Your task to perform on an android device: Open calendar and show me the third week of next month Image 0: 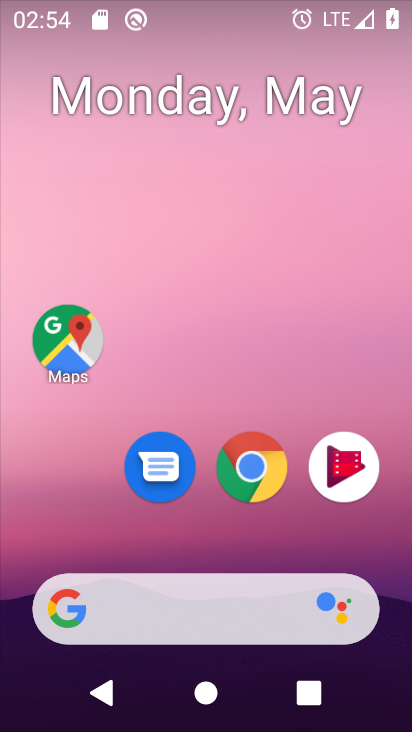
Step 0: drag from (207, 489) to (236, 156)
Your task to perform on an android device: Open calendar and show me the third week of next month Image 1: 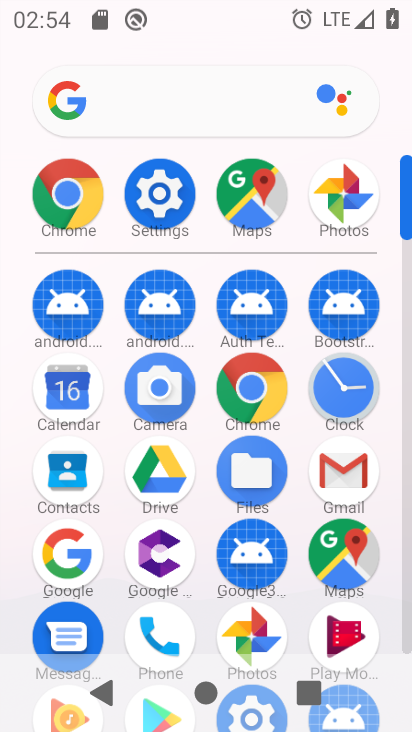
Step 1: click (56, 375)
Your task to perform on an android device: Open calendar and show me the third week of next month Image 2: 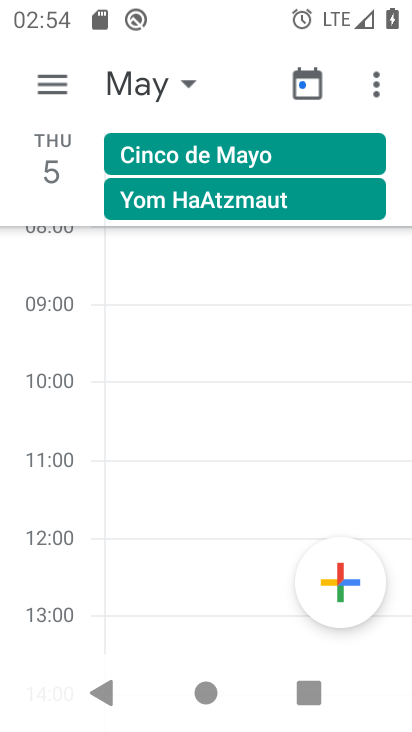
Step 2: click (56, 71)
Your task to perform on an android device: Open calendar and show me the third week of next month Image 3: 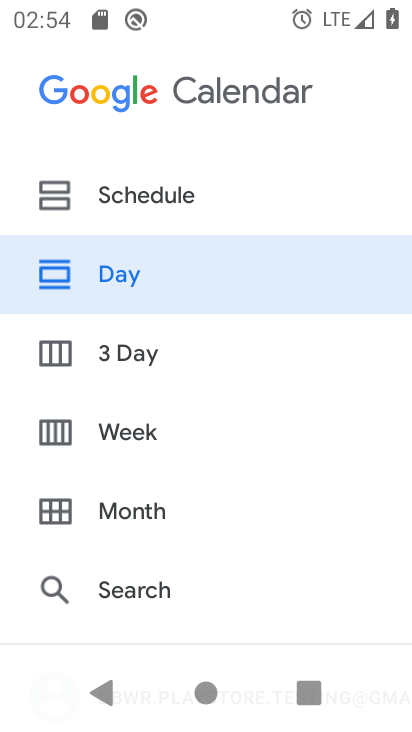
Step 3: drag from (132, 430) to (143, 505)
Your task to perform on an android device: Open calendar and show me the third week of next month Image 4: 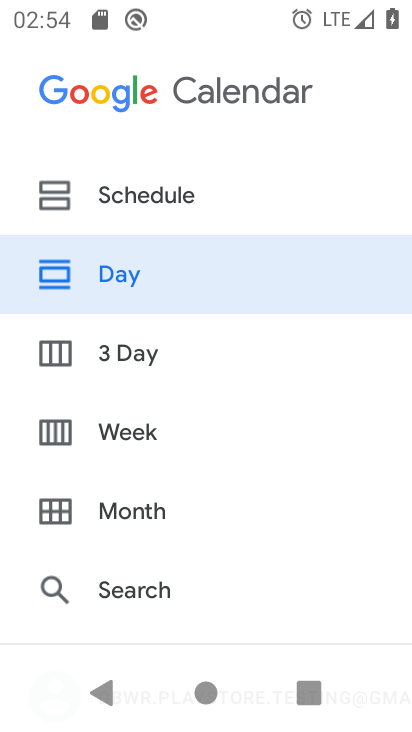
Step 4: click (97, 529)
Your task to perform on an android device: Open calendar and show me the third week of next month Image 5: 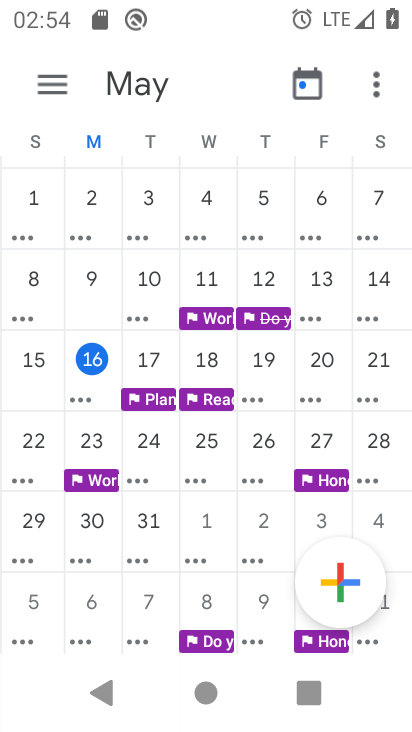
Step 5: task complete